Your task to perform on an android device: check storage Image 0: 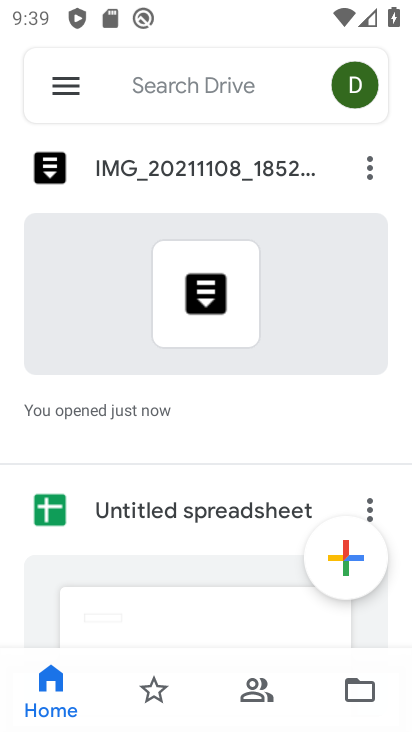
Step 0: press back button
Your task to perform on an android device: check storage Image 1: 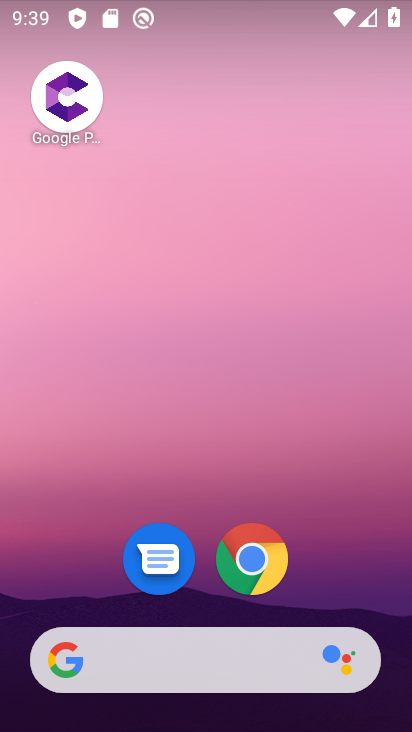
Step 1: drag from (319, 510) to (230, 24)
Your task to perform on an android device: check storage Image 2: 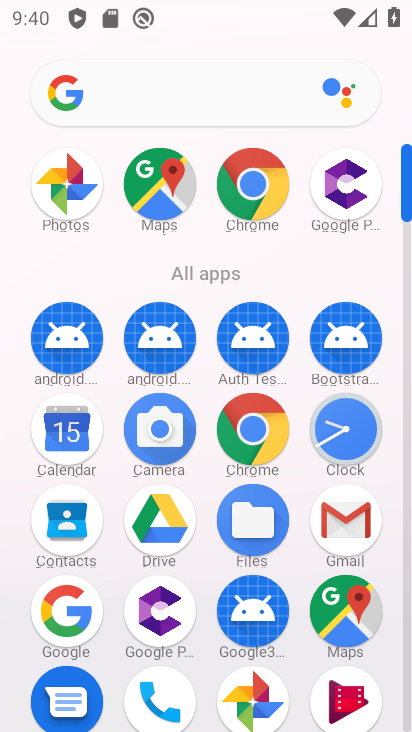
Step 2: drag from (207, 362) to (163, 33)
Your task to perform on an android device: check storage Image 3: 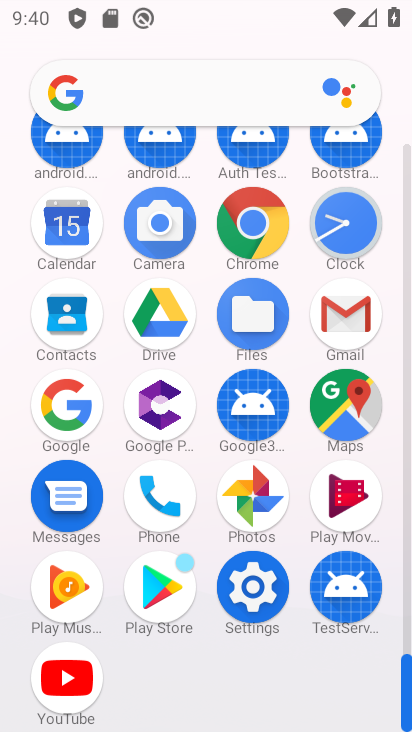
Step 3: drag from (195, 356) to (195, 120)
Your task to perform on an android device: check storage Image 4: 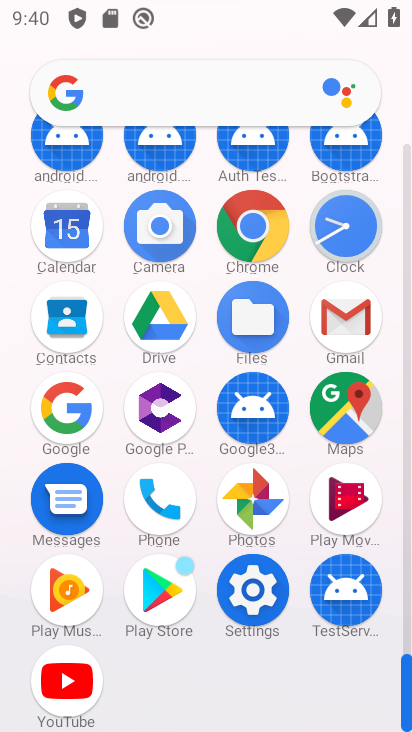
Step 4: drag from (287, 404) to (288, 112)
Your task to perform on an android device: check storage Image 5: 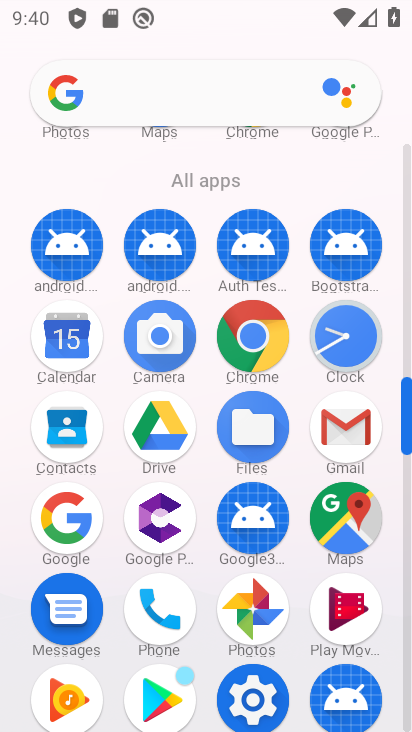
Step 5: click (257, 699)
Your task to perform on an android device: check storage Image 6: 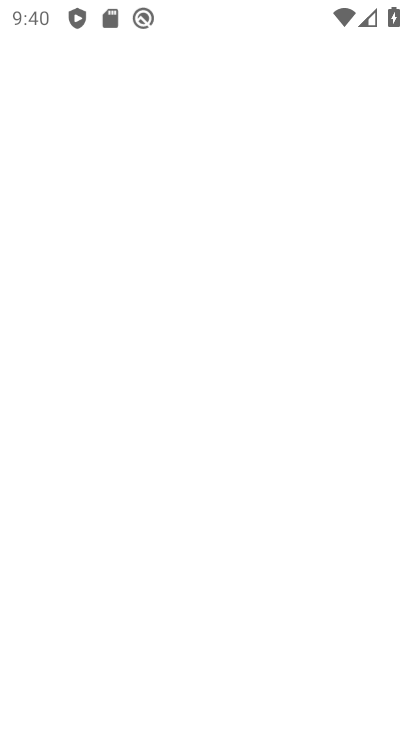
Step 6: click (257, 699)
Your task to perform on an android device: check storage Image 7: 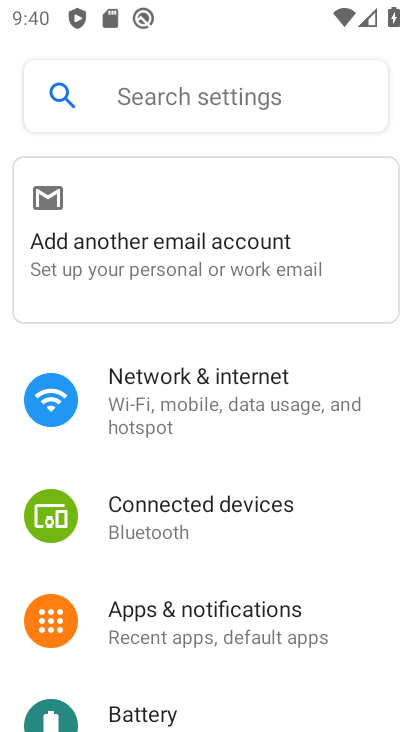
Step 7: click (210, 392)
Your task to perform on an android device: check storage Image 8: 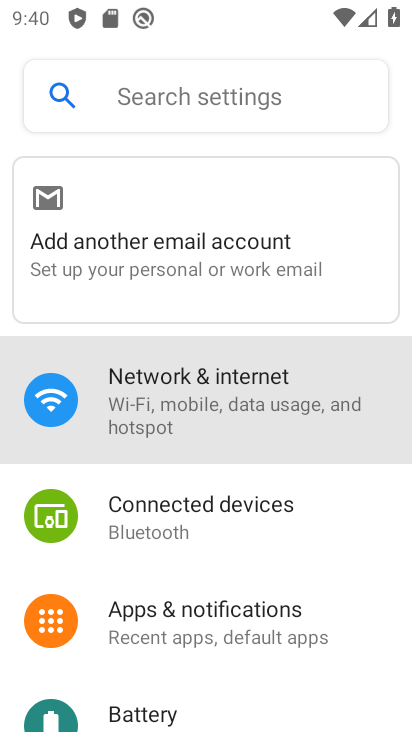
Step 8: click (216, 388)
Your task to perform on an android device: check storage Image 9: 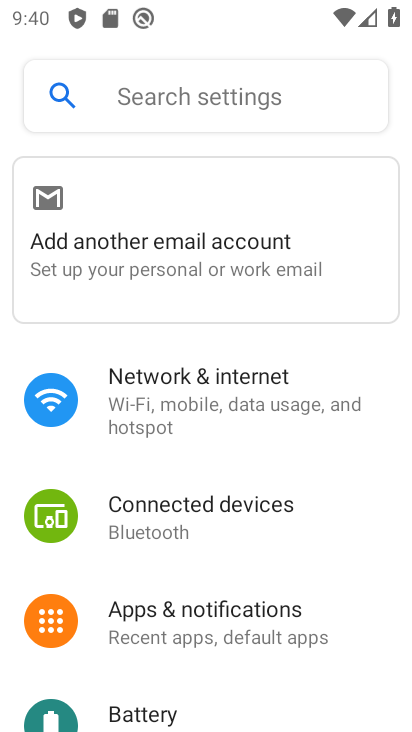
Step 9: click (213, 388)
Your task to perform on an android device: check storage Image 10: 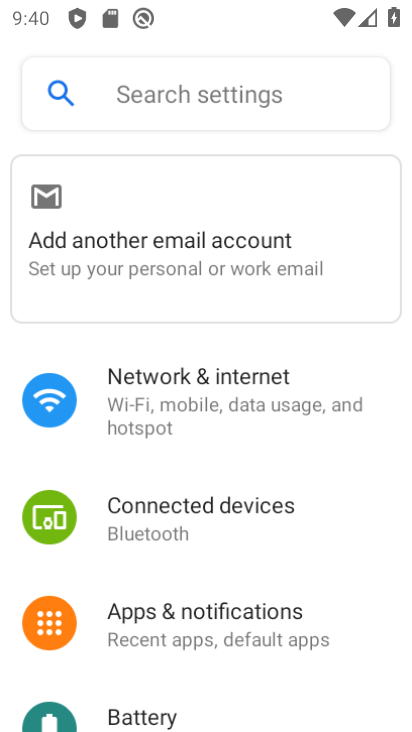
Step 10: click (215, 386)
Your task to perform on an android device: check storage Image 11: 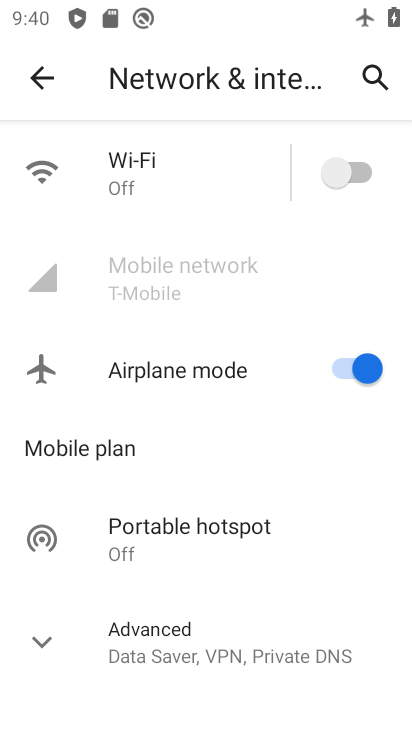
Step 11: click (334, 164)
Your task to perform on an android device: check storage Image 12: 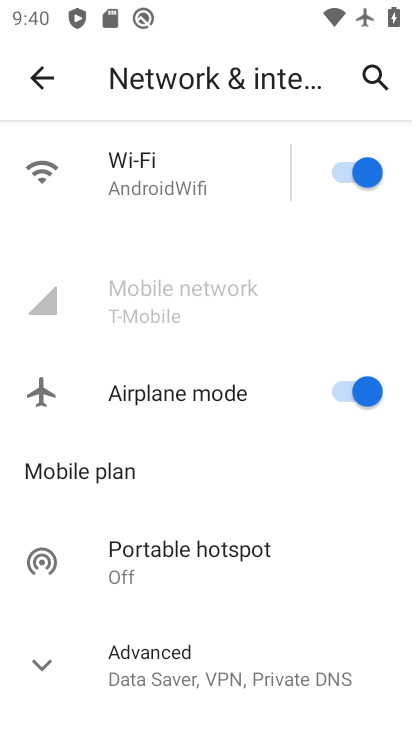
Step 12: click (47, 81)
Your task to perform on an android device: check storage Image 13: 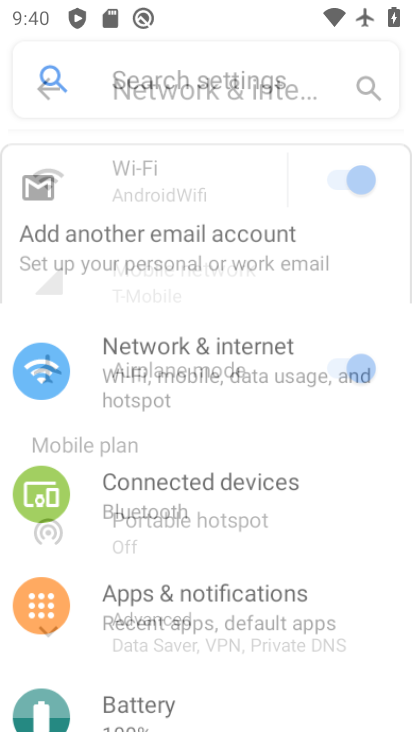
Step 13: click (35, 71)
Your task to perform on an android device: check storage Image 14: 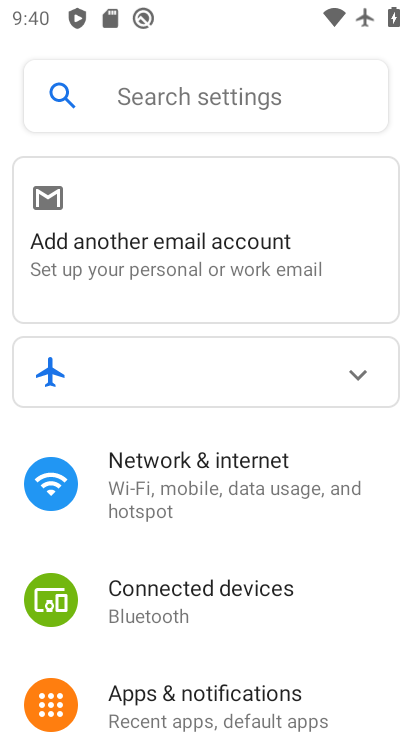
Step 14: drag from (208, 585) to (193, 214)
Your task to perform on an android device: check storage Image 15: 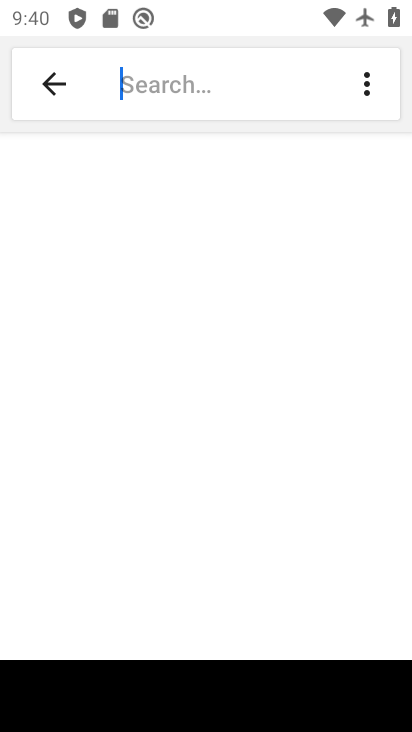
Step 15: drag from (211, 534) to (191, 209)
Your task to perform on an android device: check storage Image 16: 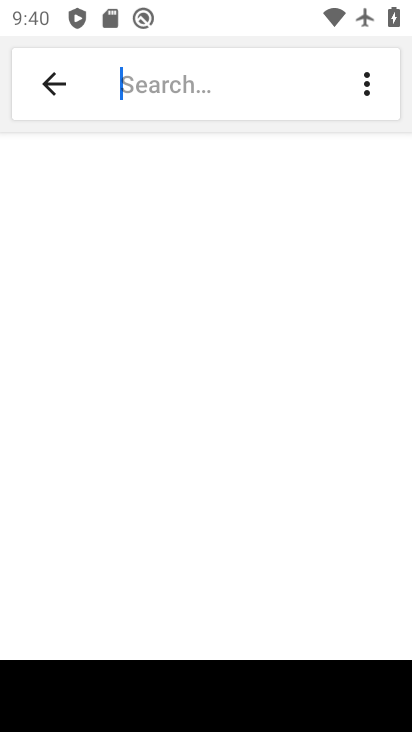
Step 16: click (55, 62)
Your task to perform on an android device: check storage Image 17: 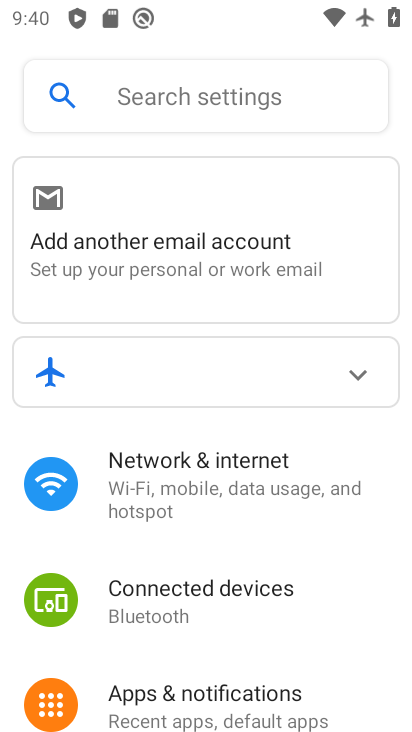
Step 17: drag from (172, 607) to (168, 347)
Your task to perform on an android device: check storage Image 18: 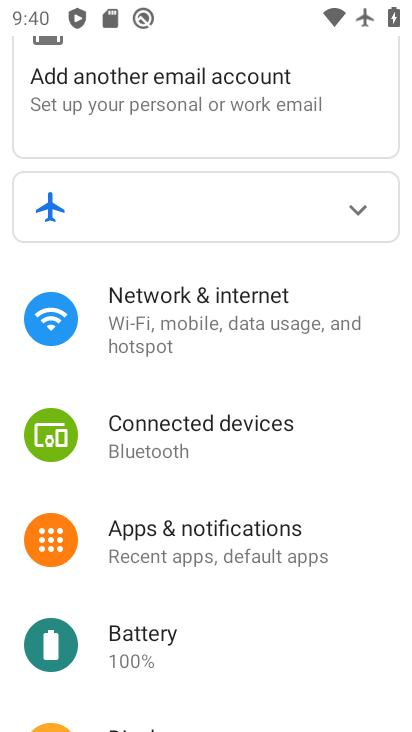
Step 18: drag from (199, 550) to (221, 230)
Your task to perform on an android device: check storage Image 19: 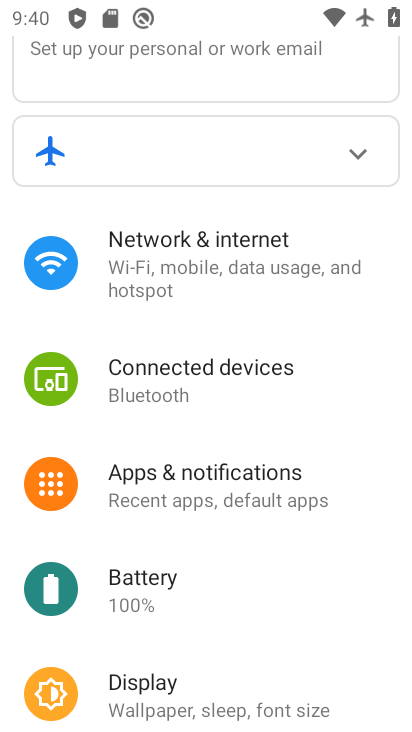
Step 19: drag from (236, 543) to (239, 193)
Your task to perform on an android device: check storage Image 20: 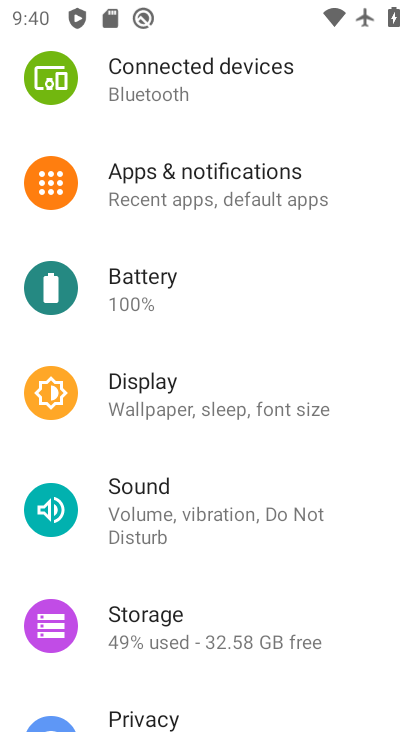
Step 20: drag from (209, 554) to (206, 53)
Your task to perform on an android device: check storage Image 21: 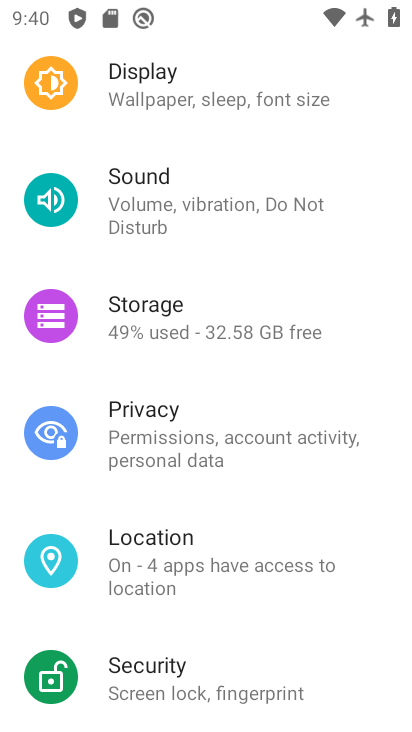
Step 21: click (148, 308)
Your task to perform on an android device: check storage Image 22: 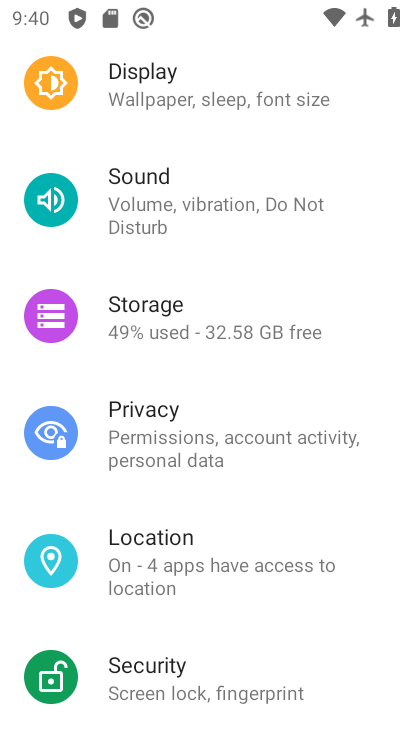
Step 22: click (148, 308)
Your task to perform on an android device: check storage Image 23: 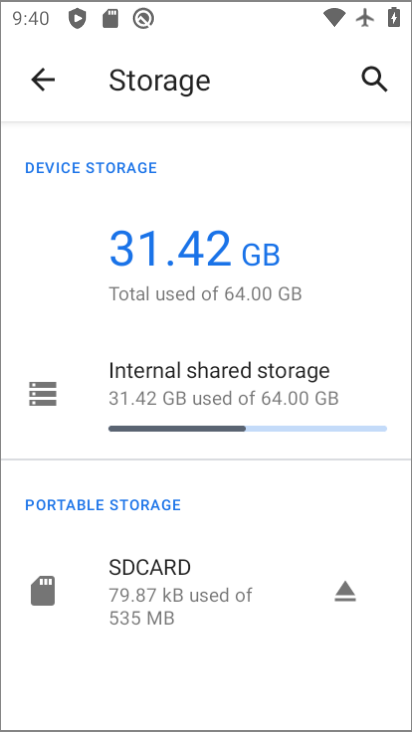
Step 23: click (150, 307)
Your task to perform on an android device: check storage Image 24: 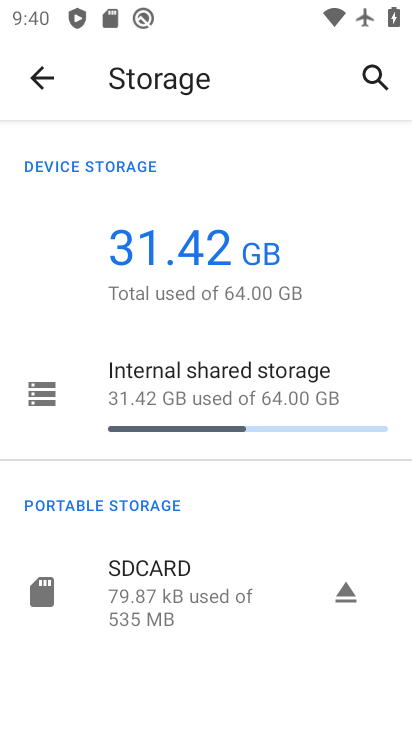
Step 24: click (154, 315)
Your task to perform on an android device: check storage Image 25: 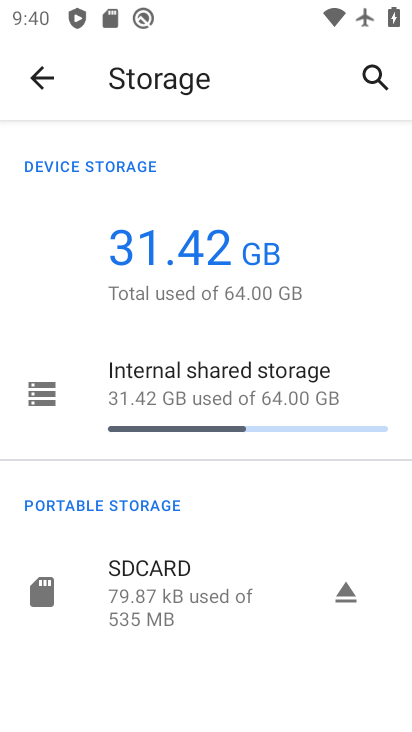
Step 25: task complete